Your task to perform on an android device: Go to eBay Image 0: 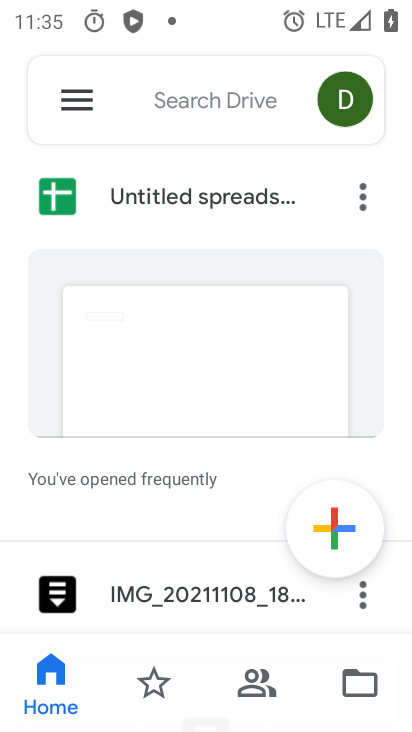
Step 0: press home button
Your task to perform on an android device: Go to eBay Image 1: 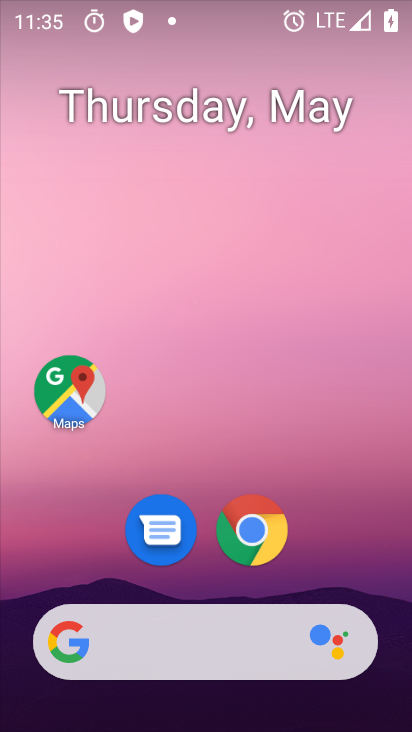
Step 1: click (176, 645)
Your task to perform on an android device: Go to eBay Image 2: 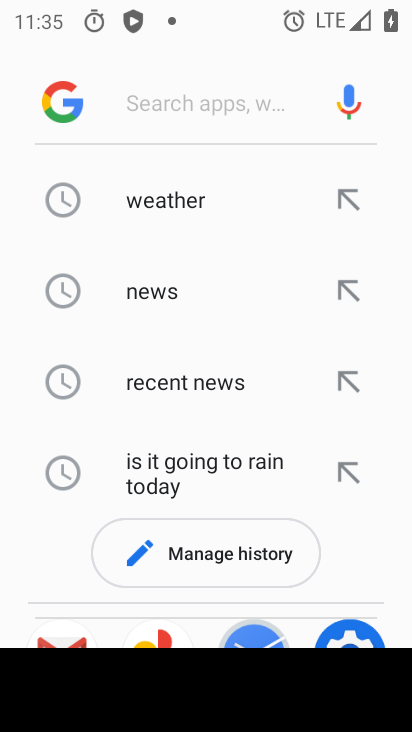
Step 2: type "ebay"
Your task to perform on an android device: Go to eBay Image 3: 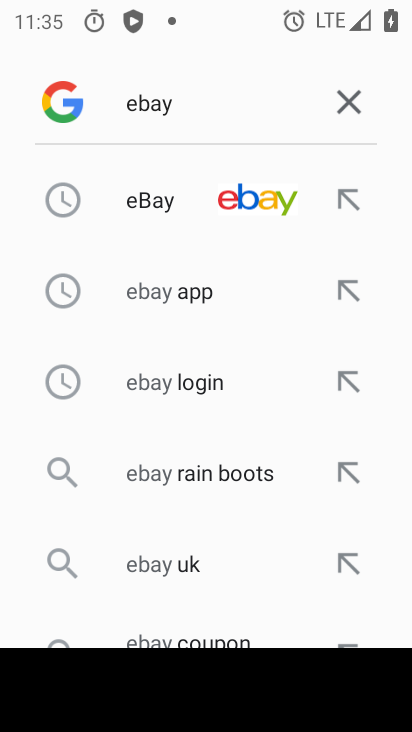
Step 3: click (168, 190)
Your task to perform on an android device: Go to eBay Image 4: 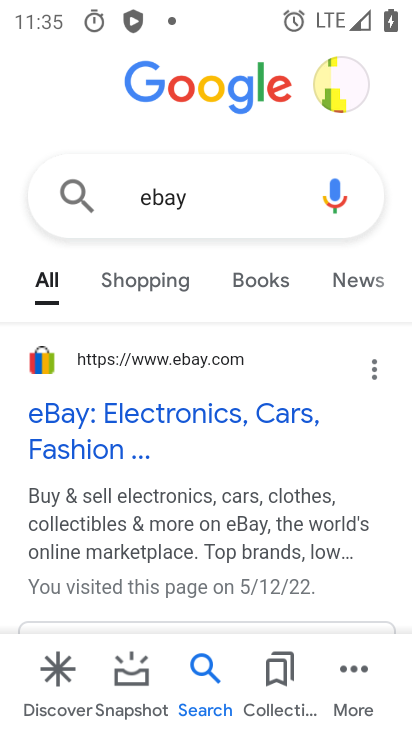
Step 4: click (77, 431)
Your task to perform on an android device: Go to eBay Image 5: 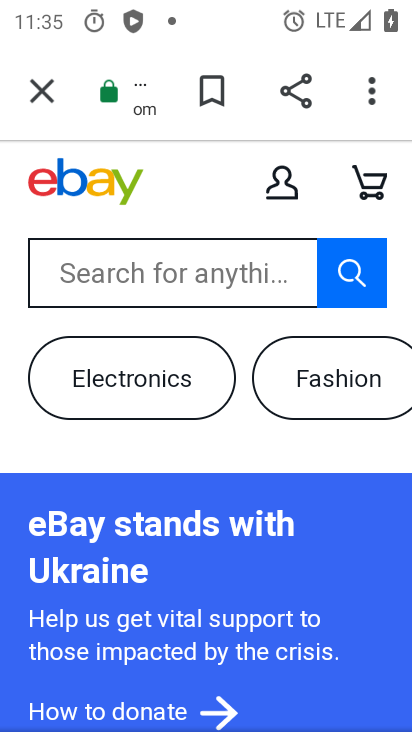
Step 5: task complete